Your task to perform on an android device: Open calendar and show me the fourth week of next month Image 0: 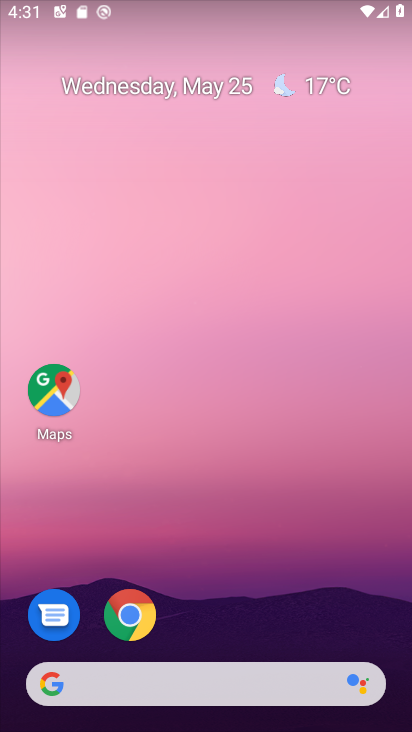
Step 0: drag from (317, 580) to (229, 7)
Your task to perform on an android device: Open calendar and show me the fourth week of next month Image 1: 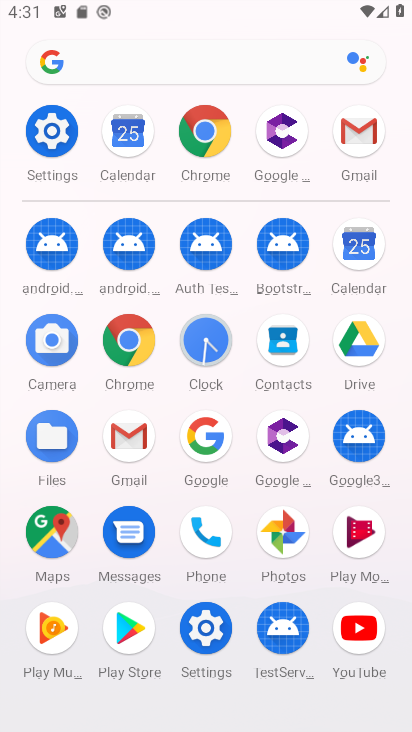
Step 1: click (347, 242)
Your task to perform on an android device: Open calendar and show me the fourth week of next month Image 2: 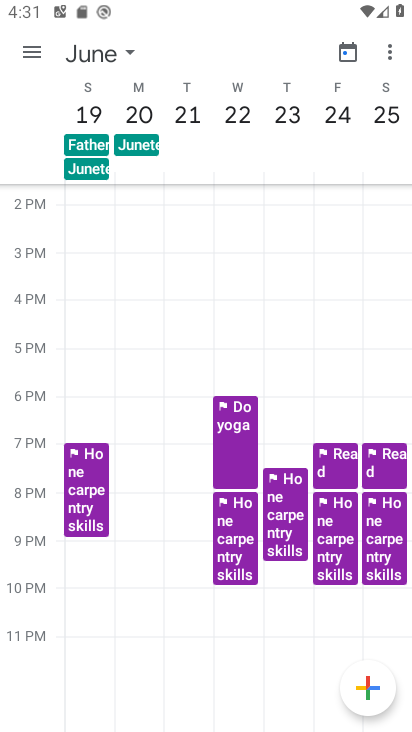
Step 2: task complete